Your task to perform on an android device: Set the phone to "Do not disturb". Image 0: 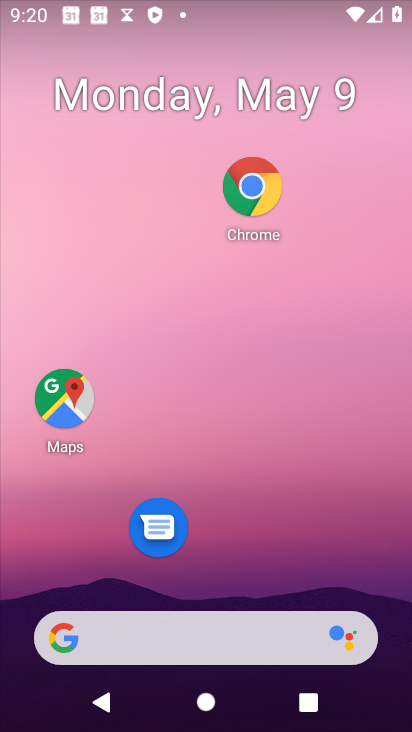
Step 0: press home button
Your task to perform on an android device: Set the phone to "Do not disturb". Image 1: 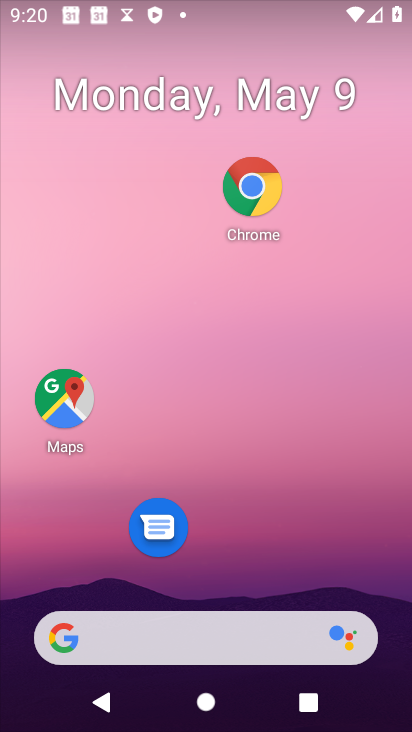
Step 1: drag from (198, 6) to (220, 563)
Your task to perform on an android device: Set the phone to "Do not disturb". Image 2: 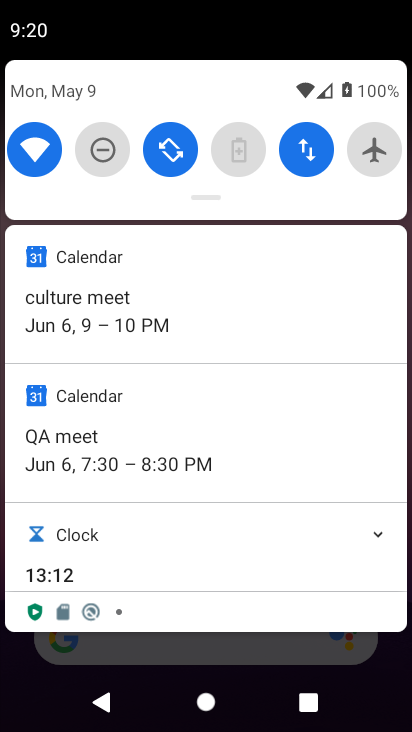
Step 2: click (100, 146)
Your task to perform on an android device: Set the phone to "Do not disturb". Image 3: 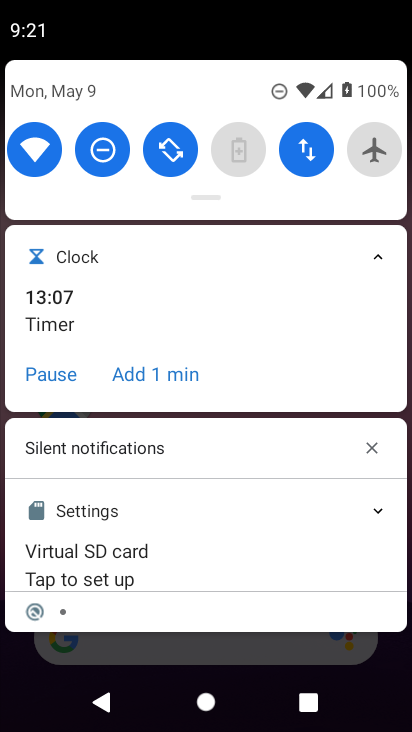
Step 3: click (47, 374)
Your task to perform on an android device: Set the phone to "Do not disturb". Image 4: 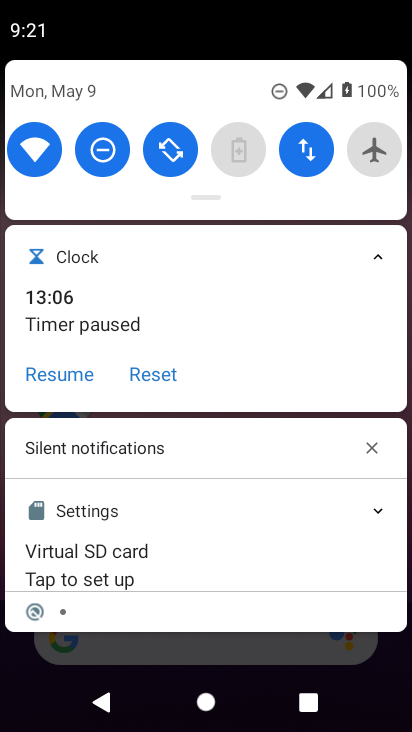
Step 4: task complete